Your task to perform on an android device: make emails show in primary in the gmail app Image 0: 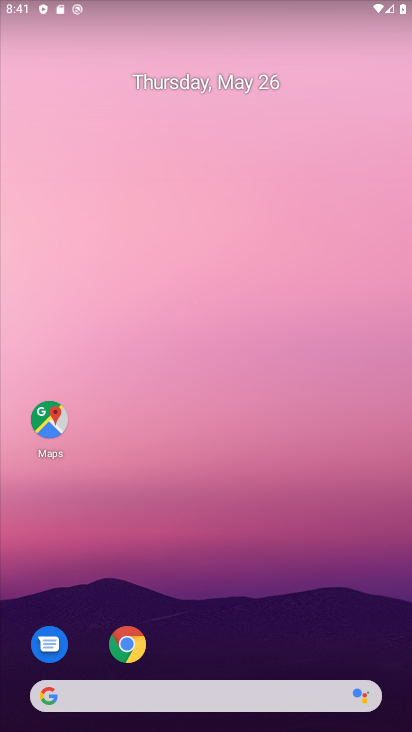
Step 0: drag from (224, 620) to (289, 29)
Your task to perform on an android device: make emails show in primary in the gmail app Image 1: 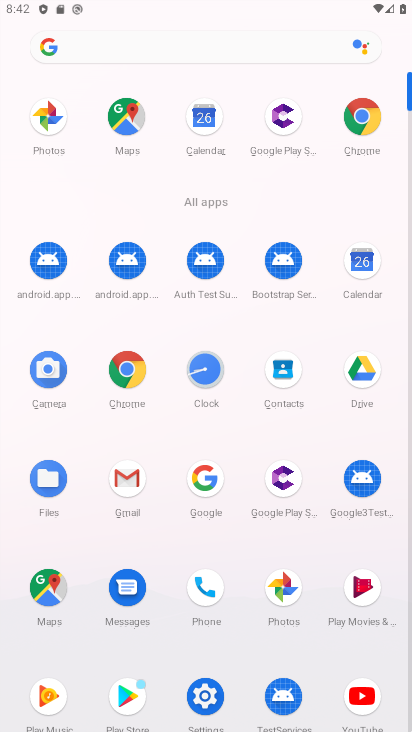
Step 1: click (139, 463)
Your task to perform on an android device: make emails show in primary in the gmail app Image 2: 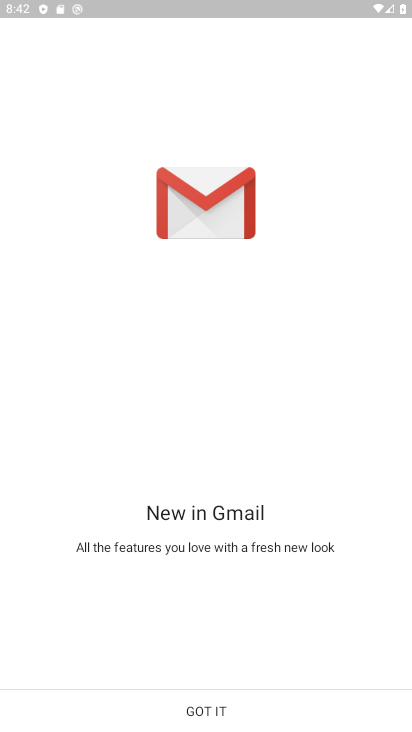
Step 2: click (200, 704)
Your task to perform on an android device: make emails show in primary in the gmail app Image 3: 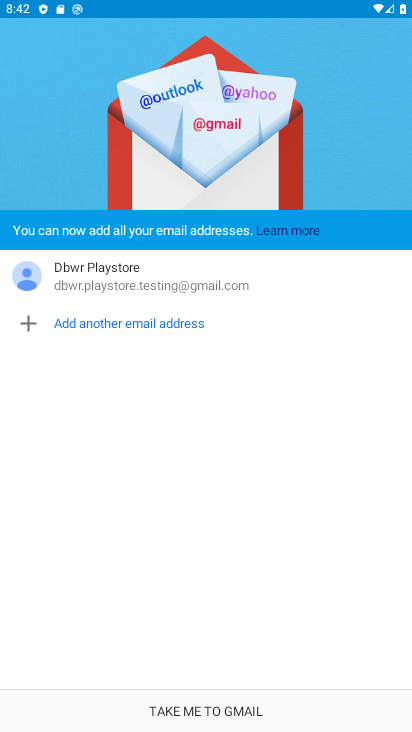
Step 3: click (200, 702)
Your task to perform on an android device: make emails show in primary in the gmail app Image 4: 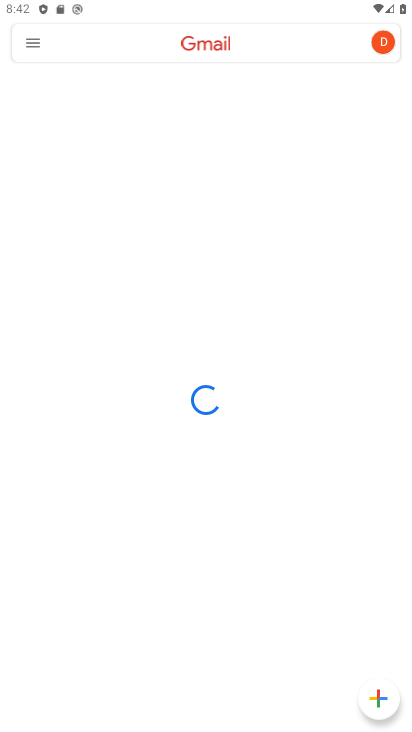
Step 4: click (36, 42)
Your task to perform on an android device: make emails show in primary in the gmail app Image 5: 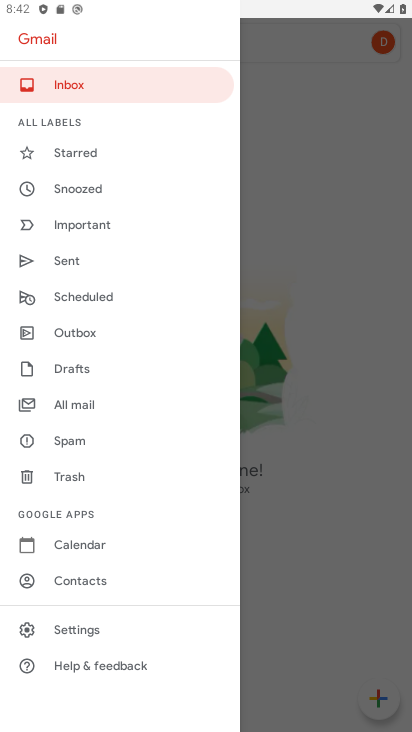
Step 5: click (71, 632)
Your task to perform on an android device: make emails show in primary in the gmail app Image 6: 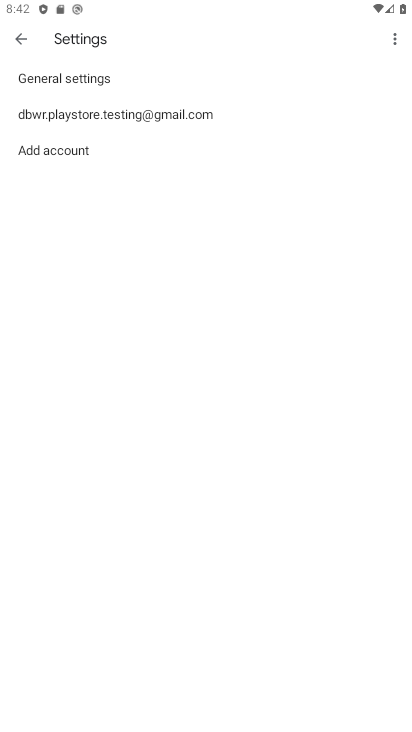
Step 6: click (143, 115)
Your task to perform on an android device: make emails show in primary in the gmail app Image 7: 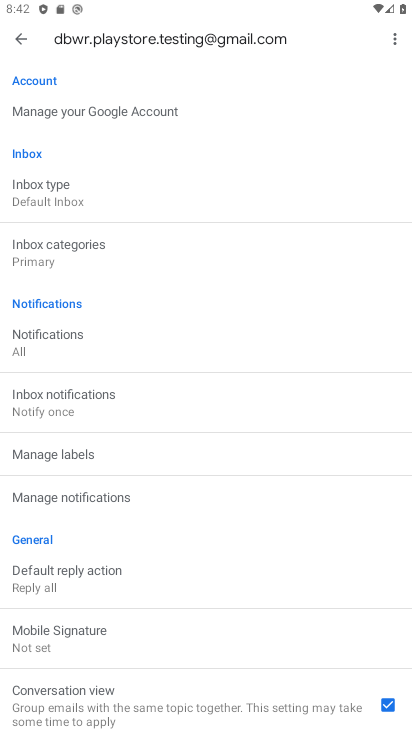
Step 7: click (69, 250)
Your task to perform on an android device: make emails show in primary in the gmail app Image 8: 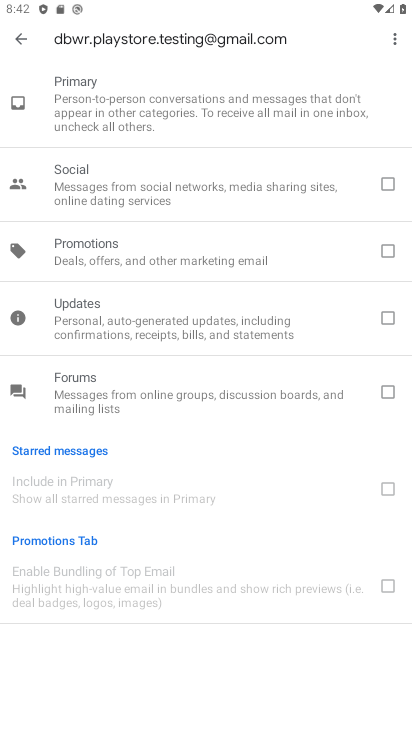
Step 8: click (388, 183)
Your task to perform on an android device: make emails show in primary in the gmail app Image 9: 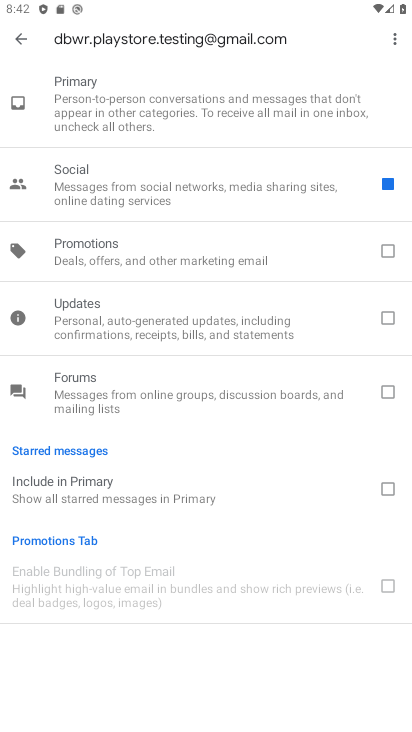
Step 9: click (388, 251)
Your task to perform on an android device: make emails show in primary in the gmail app Image 10: 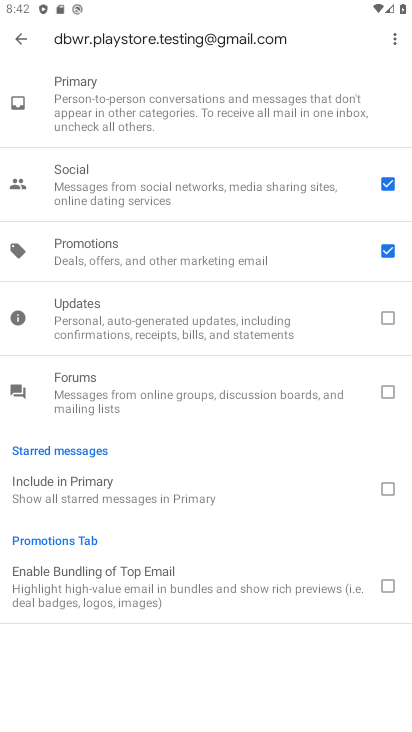
Step 10: click (398, 320)
Your task to perform on an android device: make emails show in primary in the gmail app Image 11: 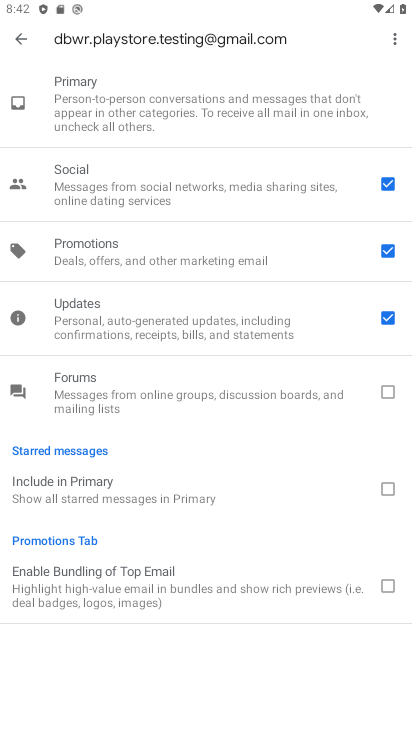
Step 11: click (391, 392)
Your task to perform on an android device: make emails show in primary in the gmail app Image 12: 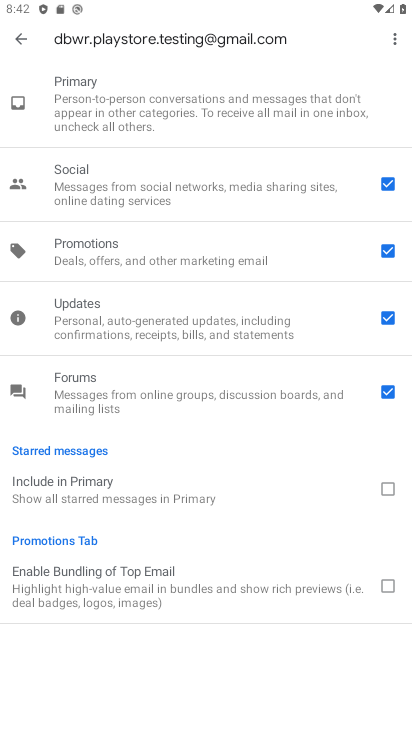
Step 12: click (390, 491)
Your task to perform on an android device: make emails show in primary in the gmail app Image 13: 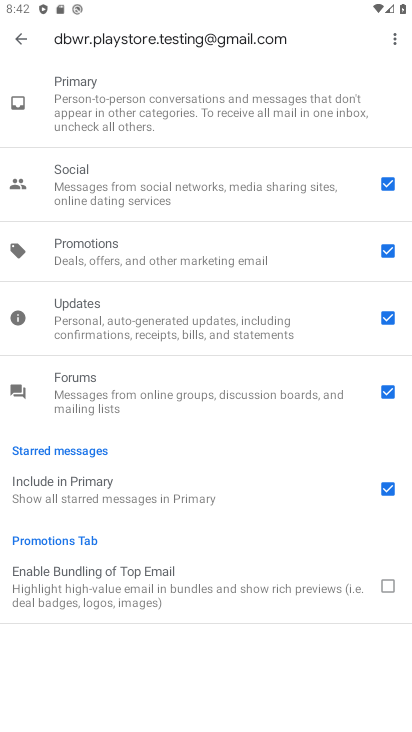
Step 13: task complete